Your task to perform on an android device: Is it going to rain today? Image 0: 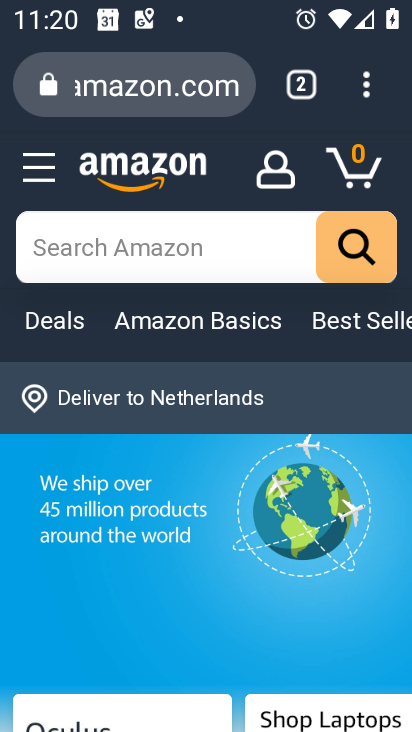
Step 0: press home button
Your task to perform on an android device: Is it going to rain today? Image 1: 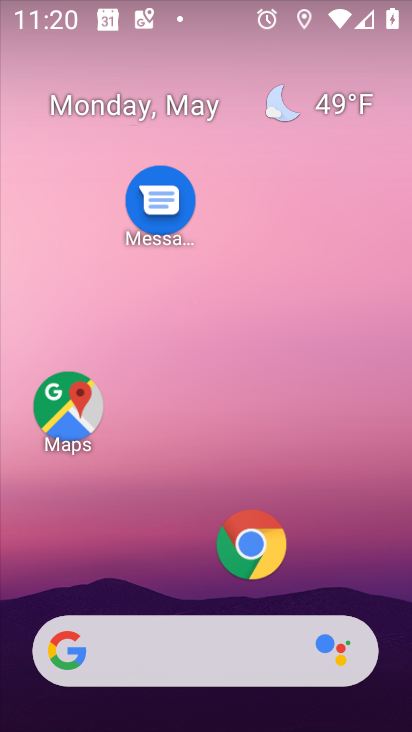
Step 1: drag from (150, 553) to (182, 53)
Your task to perform on an android device: Is it going to rain today? Image 2: 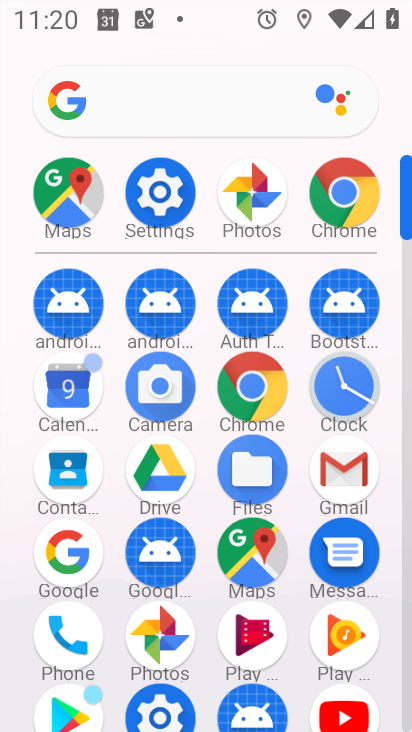
Step 2: click (157, 112)
Your task to perform on an android device: Is it going to rain today? Image 3: 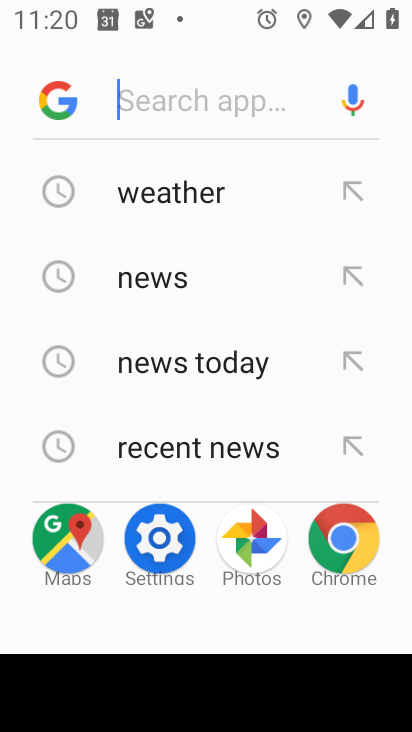
Step 3: type "is it going to rain today"
Your task to perform on an android device: Is it going to rain today? Image 4: 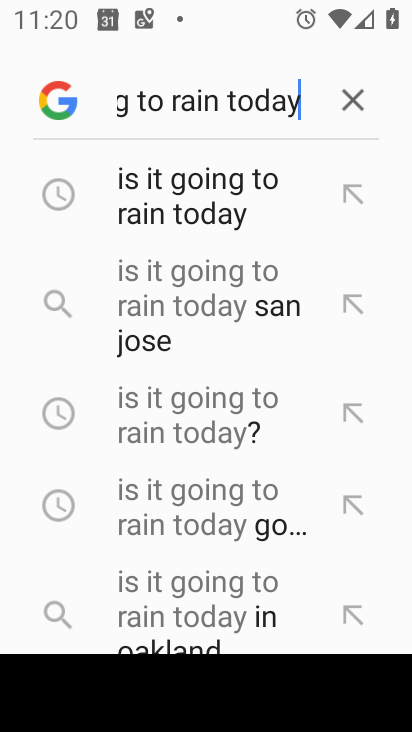
Step 4: click (221, 174)
Your task to perform on an android device: Is it going to rain today? Image 5: 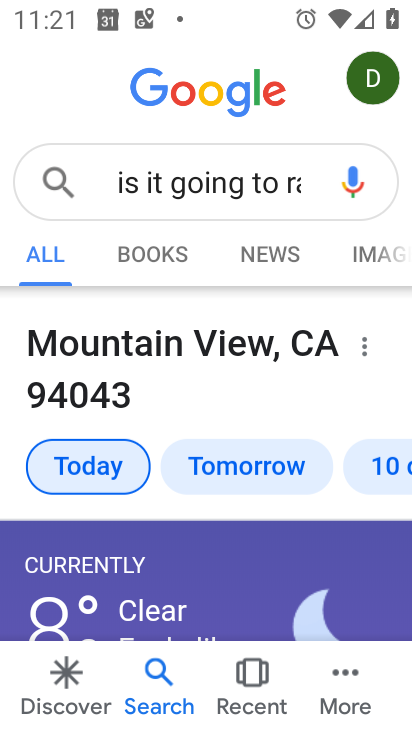
Step 5: task complete